Your task to perform on an android device: change keyboard looks Image 0: 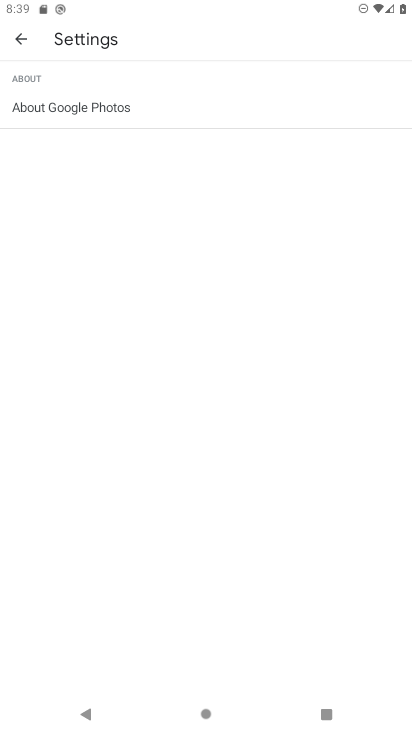
Step 0: press home button
Your task to perform on an android device: change keyboard looks Image 1: 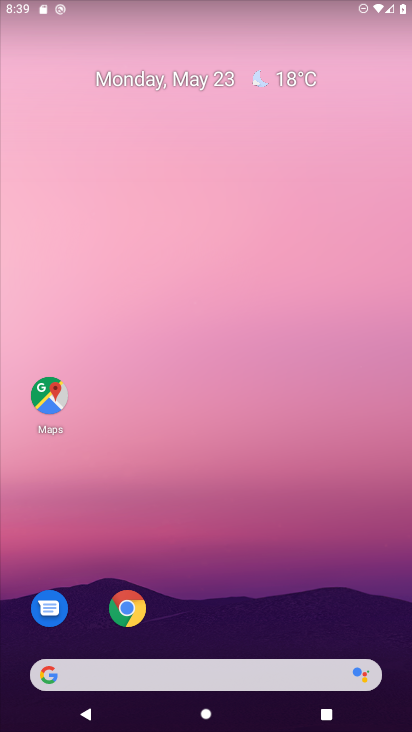
Step 1: drag from (236, 702) to (236, 91)
Your task to perform on an android device: change keyboard looks Image 2: 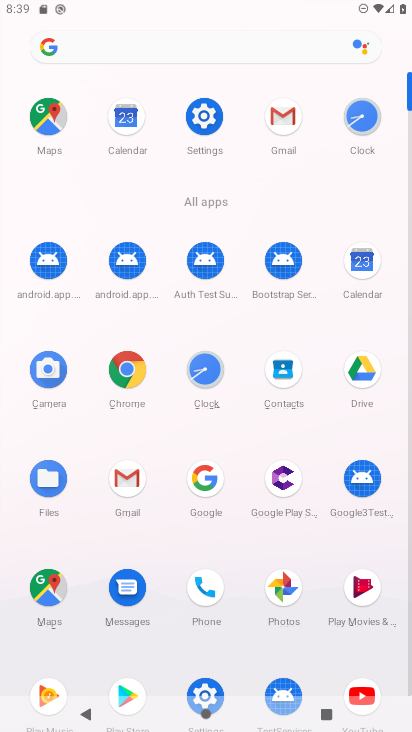
Step 2: click (207, 115)
Your task to perform on an android device: change keyboard looks Image 3: 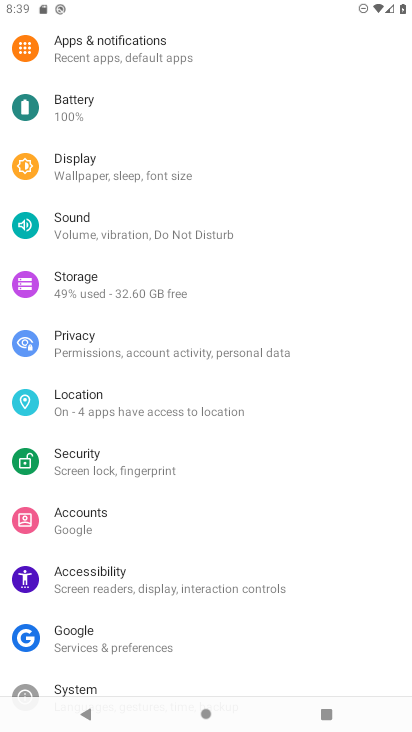
Step 3: drag from (211, 666) to (222, 199)
Your task to perform on an android device: change keyboard looks Image 4: 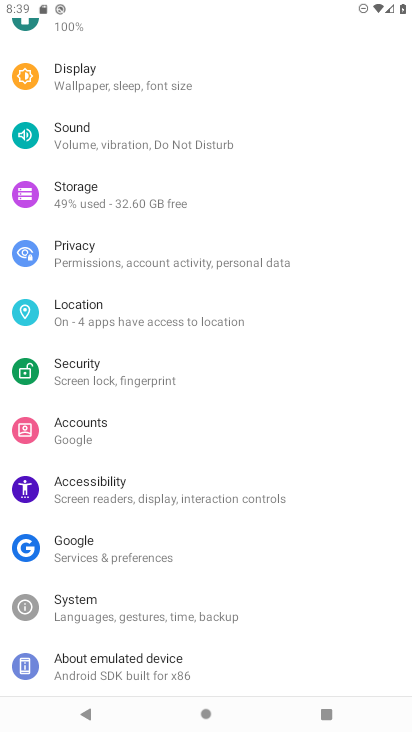
Step 4: click (84, 607)
Your task to perform on an android device: change keyboard looks Image 5: 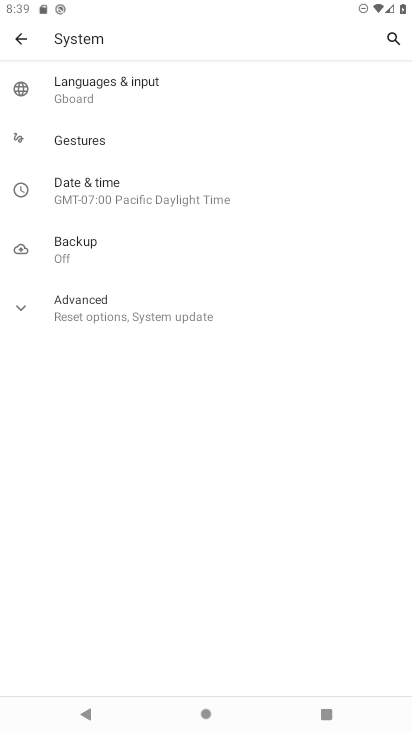
Step 5: click (91, 75)
Your task to perform on an android device: change keyboard looks Image 6: 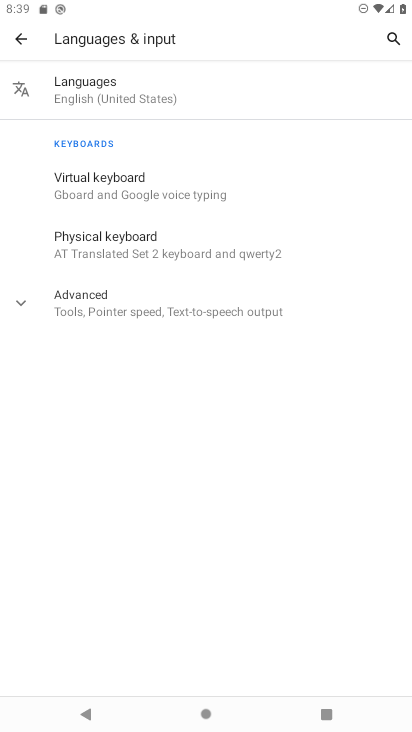
Step 6: click (98, 176)
Your task to perform on an android device: change keyboard looks Image 7: 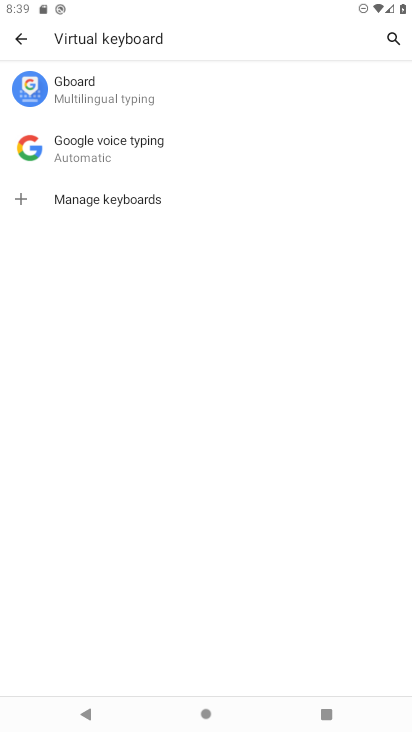
Step 7: click (85, 97)
Your task to perform on an android device: change keyboard looks Image 8: 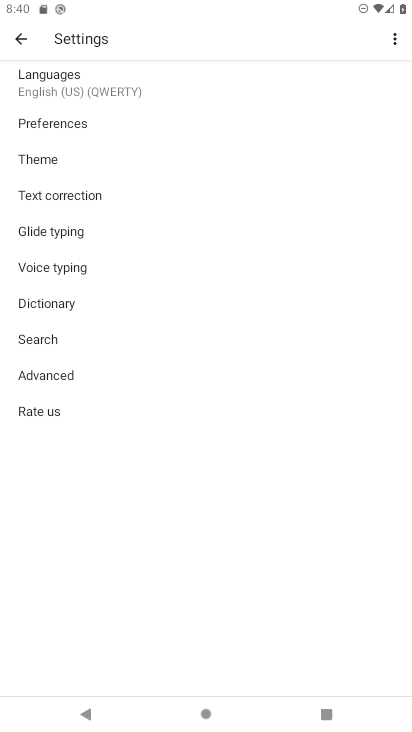
Step 8: click (30, 158)
Your task to perform on an android device: change keyboard looks Image 9: 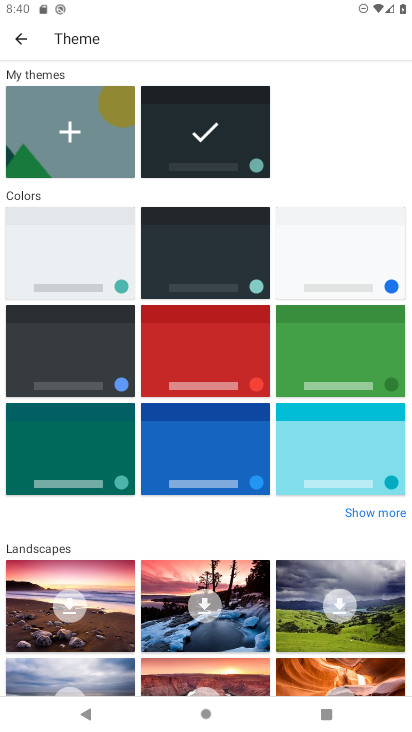
Step 9: click (222, 257)
Your task to perform on an android device: change keyboard looks Image 10: 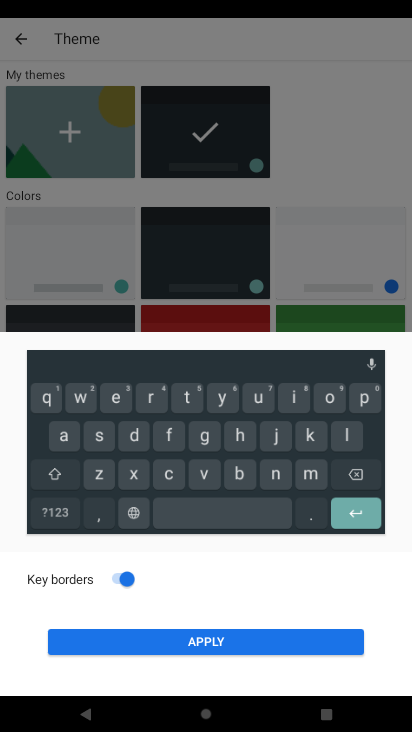
Step 10: click (169, 643)
Your task to perform on an android device: change keyboard looks Image 11: 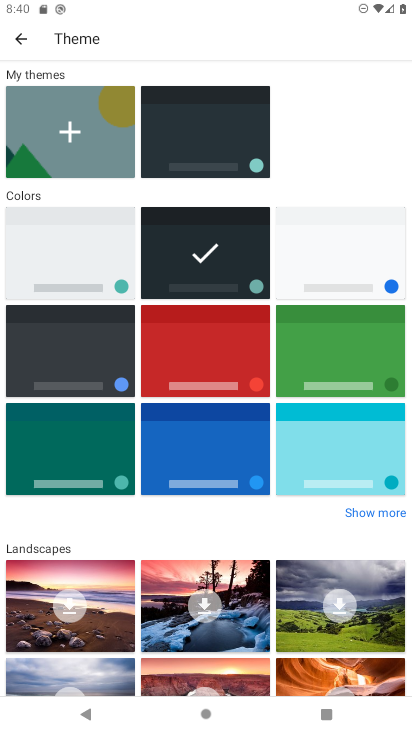
Step 11: task complete